Your task to perform on an android device: check storage Image 0: 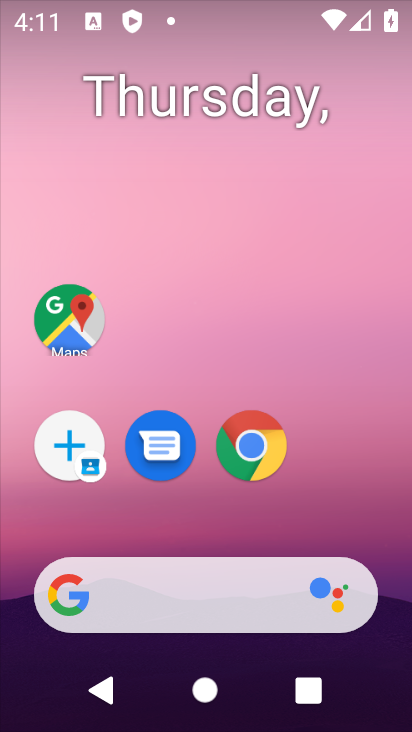
Step 0: drag from (344, 420) to (306, 0)
Your task to perform on an android device: check storage Image 1: 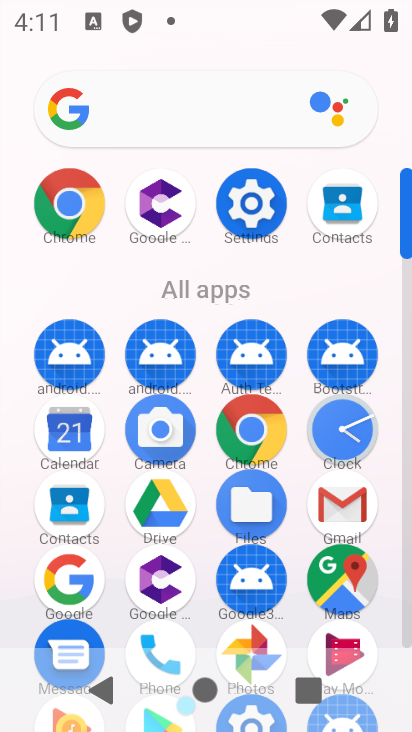
Step 1: click (254, 184)
Your task to perform on an android device: check storage Image 2: 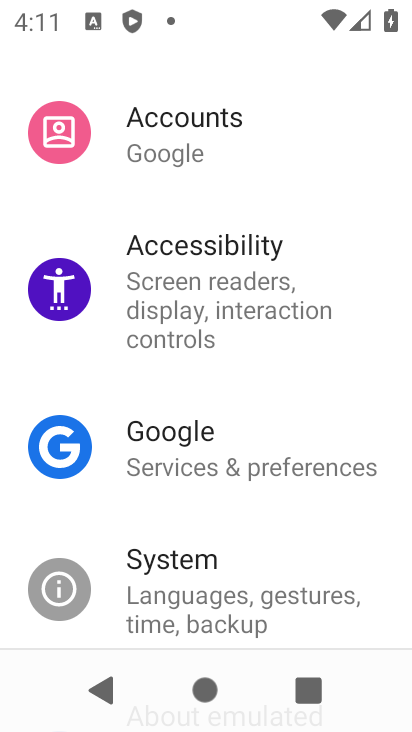
Step 2: drag from (149, 250) to (159, 629)
Your task to perform on an android device: check storage Image 3: 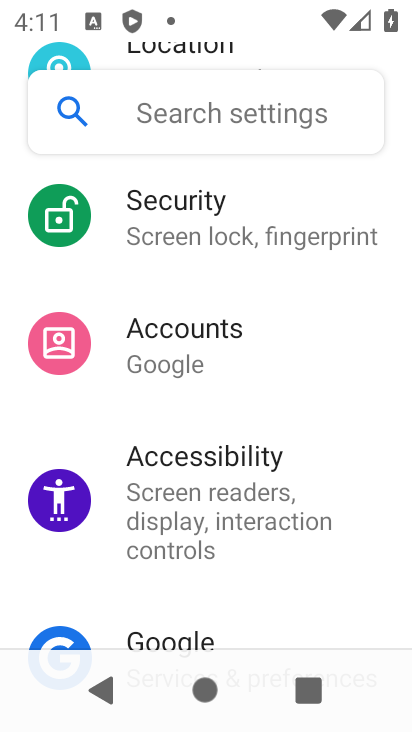
Step 3: drag from (232, 203) to (253, 608)
Your task to perform on an android device: check storage Image 4: 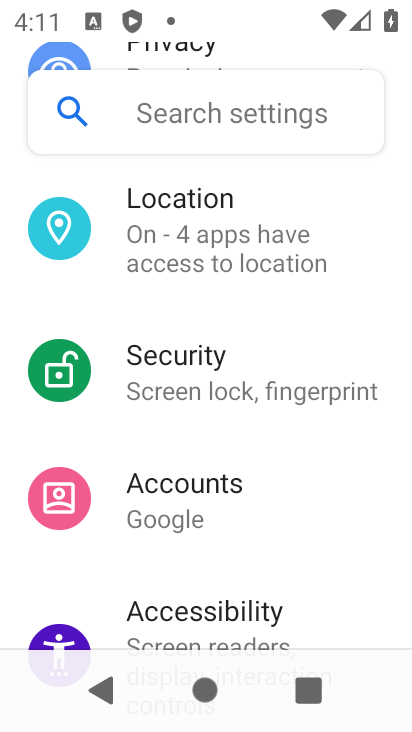
Step 4: drag from (223, 260) to (205, 574)
Your task to perform on an android device: check storage Image 5: 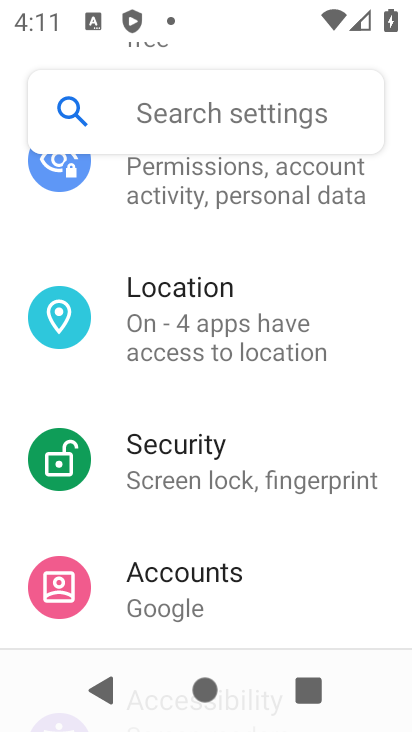
Step 5: drag from (289, 269) to (255, 651)
Your task to perform on an android device: check storage Image 6: 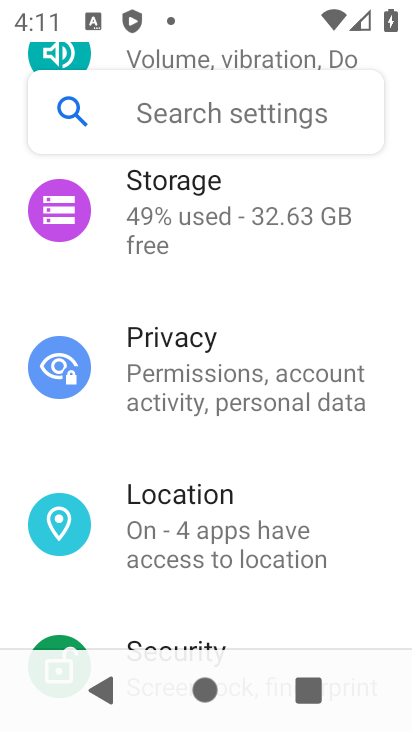
Step 6: drag from (273, 370) to (251, 655)
Your task to perform on an android device: check storage Image 7: 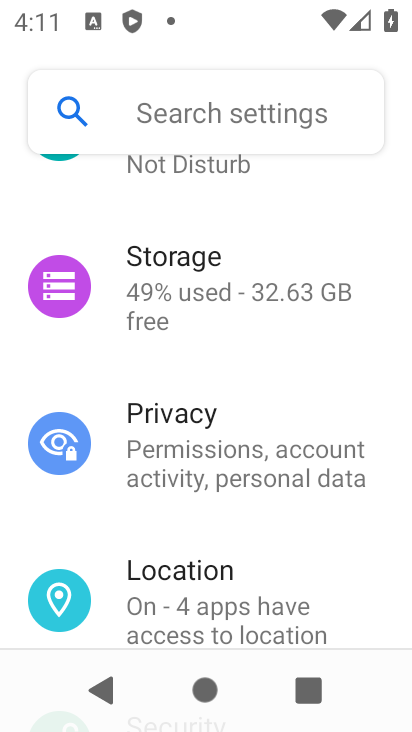
Step 7: drag from (321, 316) to (294, 583)
Your task to perform on an android device: check storage Image 8: 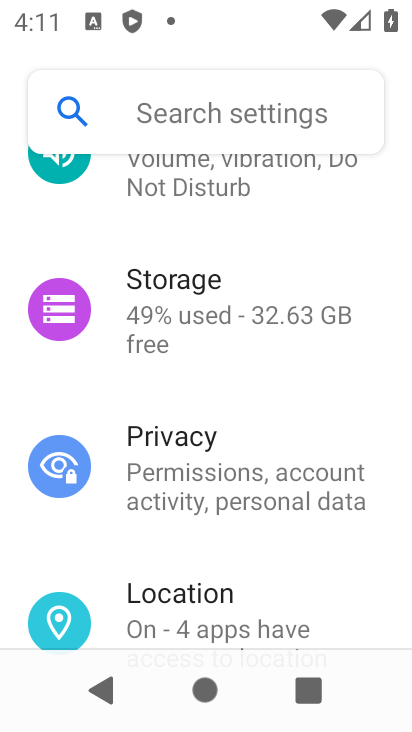
Step 8: drag from (279, 284) to (222, 612)
Your task to perform on an android device: check storage Image 9: 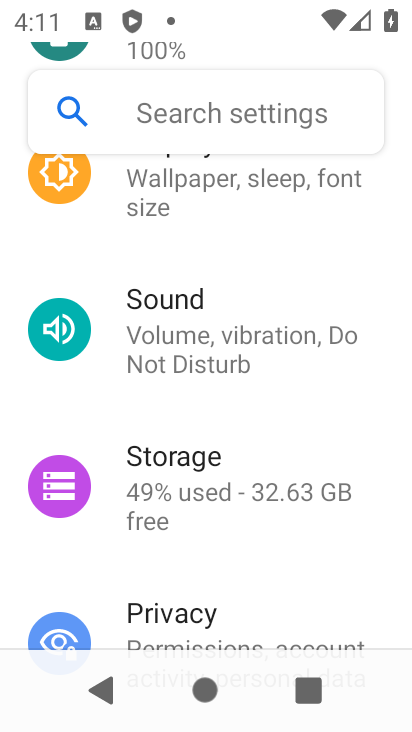
Step 9: drag from (237, 291) to (200, 637)
Your task to perform on an android device: check storage Image 10: 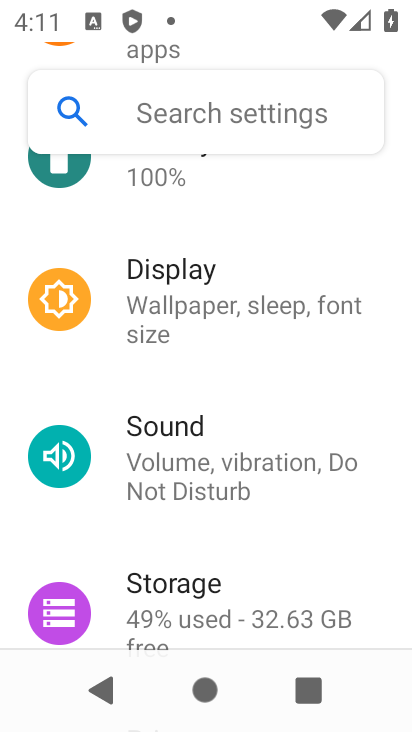
Step 10: drag from (278, 351) to (294, 679)
Your task to perform on an android device: check storage Image 11: 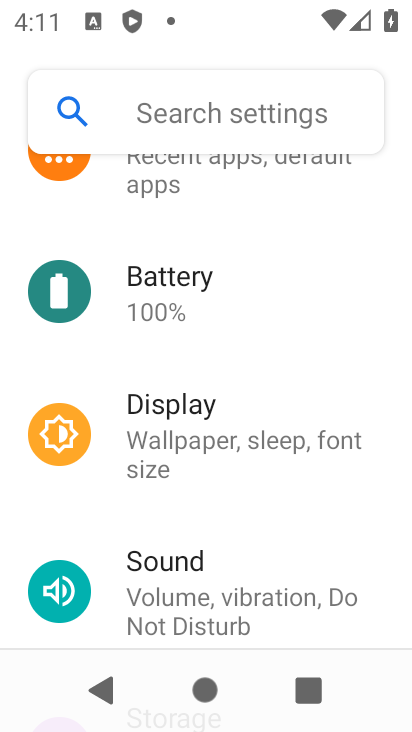
Step 11: drag from (241, 366) to (266, 711)
Your task to perform on an android device: check storage Image 12: 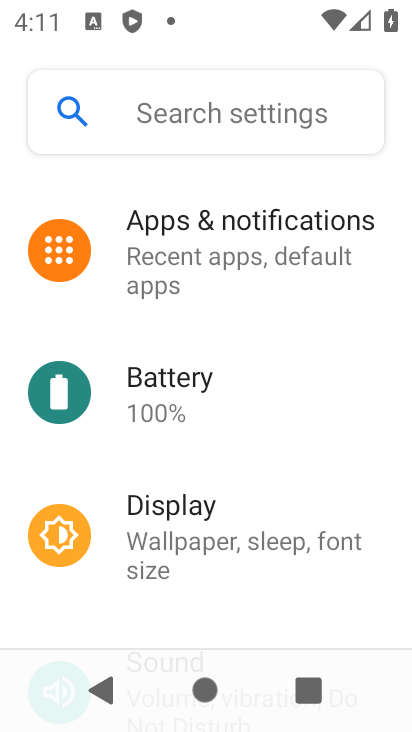
Step 12: drag from (310, 349) to (303, 611)
Your task to perform on an android device: check storage Image 13: 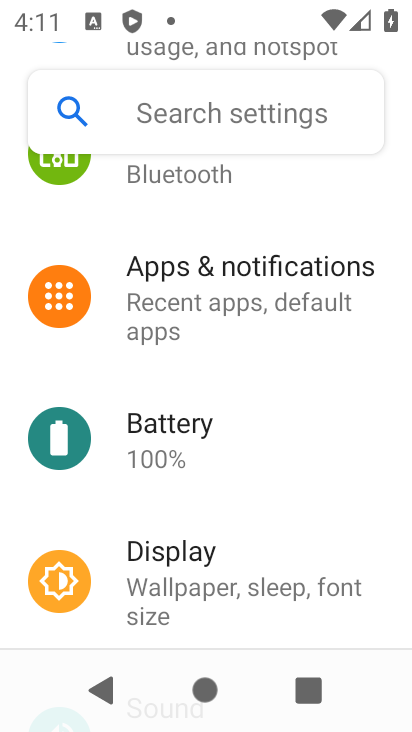
Step 13: drag from (241, 265) to (269, 568)
Your task to perform on an android device: check storage Image 14: 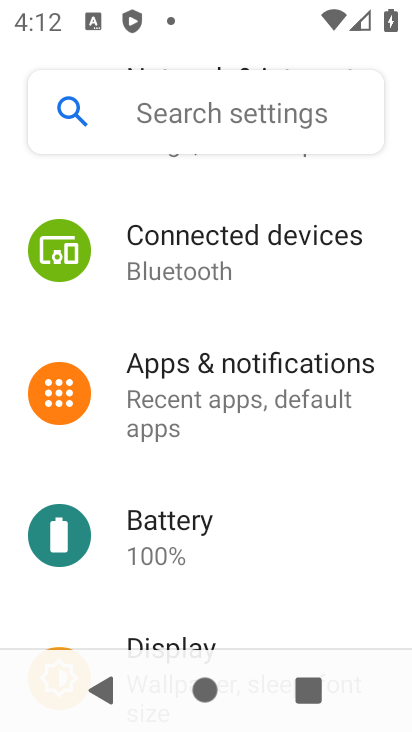
Step 14: drag from (216, 208) to (226, 682)
Your task to perform on an android device: check storage Image 15: 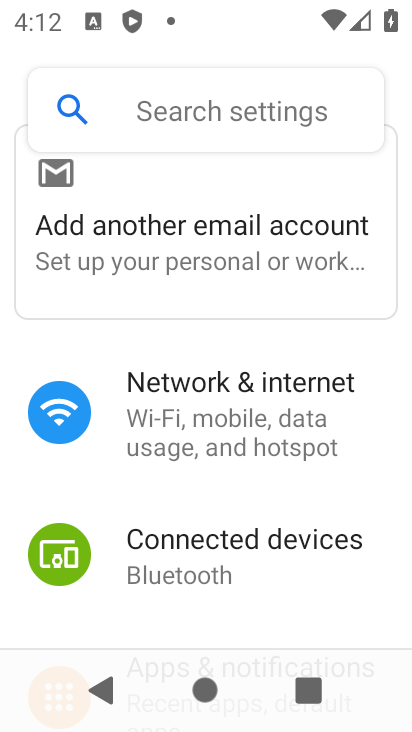
Step 15: drag from (228, 556) to (240, 176)
Your task to perform on an android device: check storage Image 16: 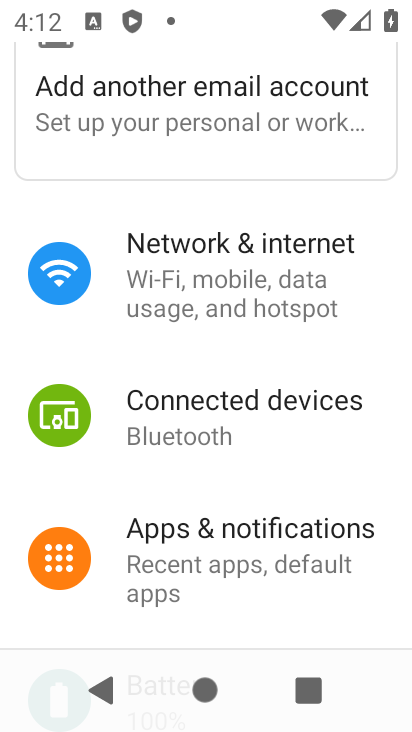
Step 16: drag from (284, 436) to (294, 159)
Your task to perform on an android device: check storage Image 17: 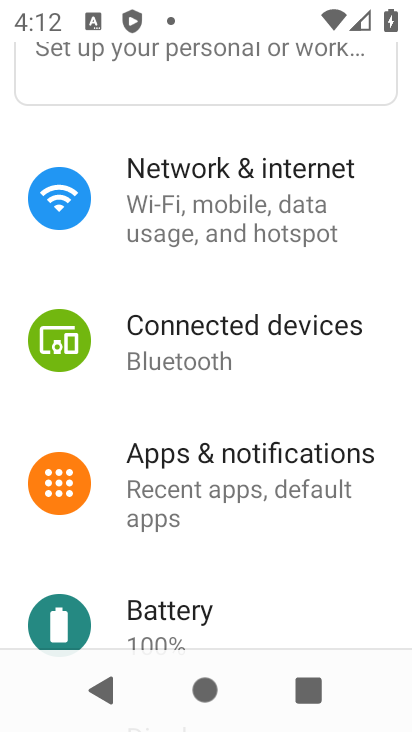
Step 17: drag from (228, 619) to (275, 191)
Your task to perform on an android device: check storage Image 18: 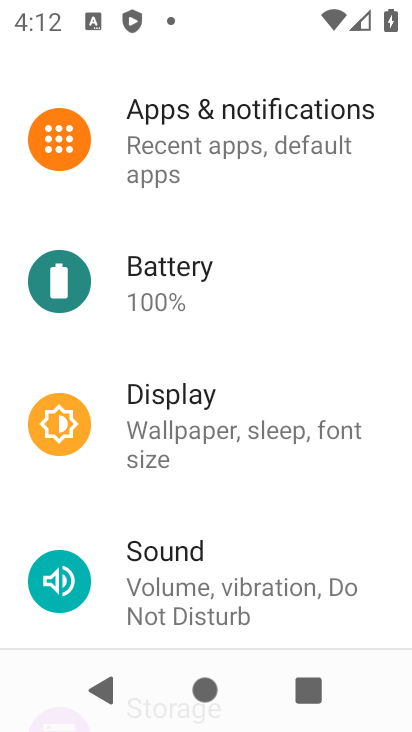
Step 18: drag from (277, 577) to (296, 151)
Your task to perform on an android device: check storage Image 19: 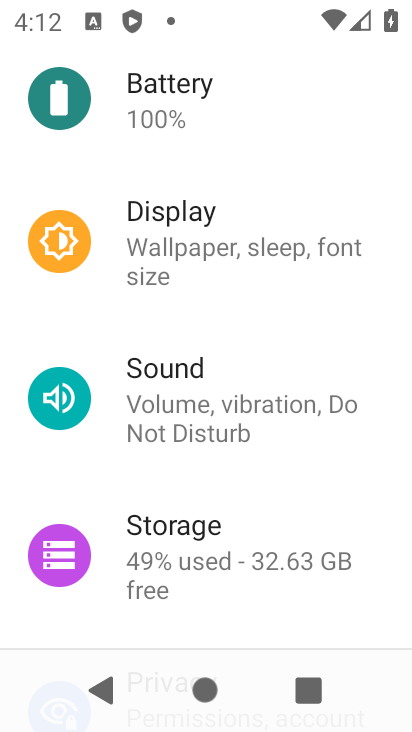
Step 19: click (228, 553)
Your task to perform on an android device: check storage Image 20: 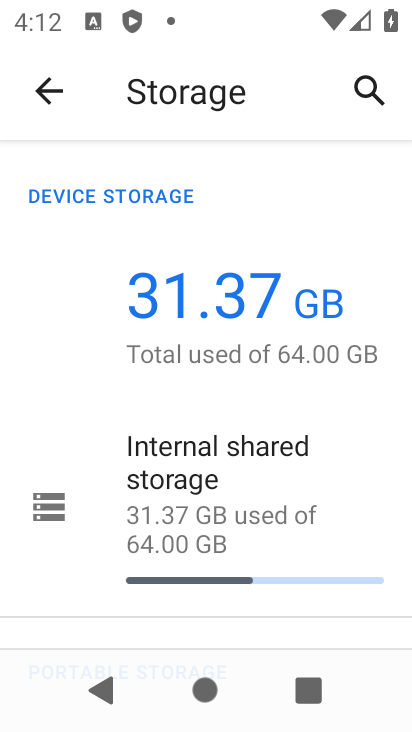
Step 20: task complete